Your task to perform on an android device: allow cookies in the chrome app Image 0: 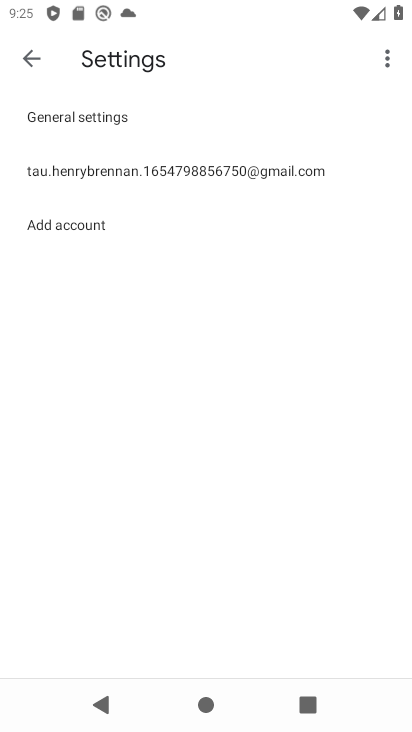
Step 0: press home button
Your task to perform on an android device: allow cookies in the chrome app Image 1: 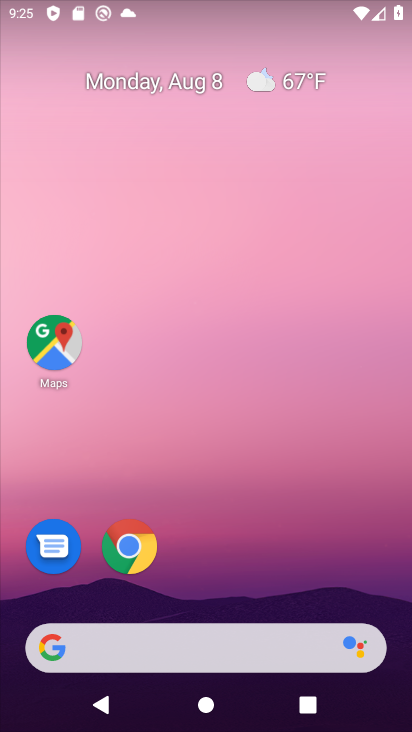
Step 1: click (125, 554)
Your task to perform on an android device: allow cookies in the chrome app Image 2: 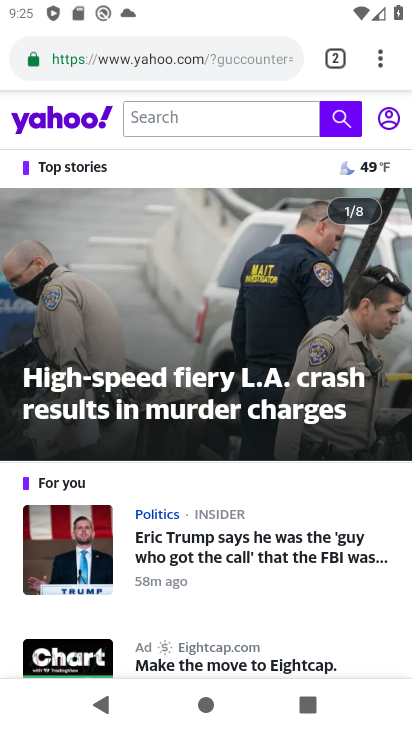
Step 2: click (387, 69)
Your task to perform on an android device: allow cookies in the chrome app Image 3: 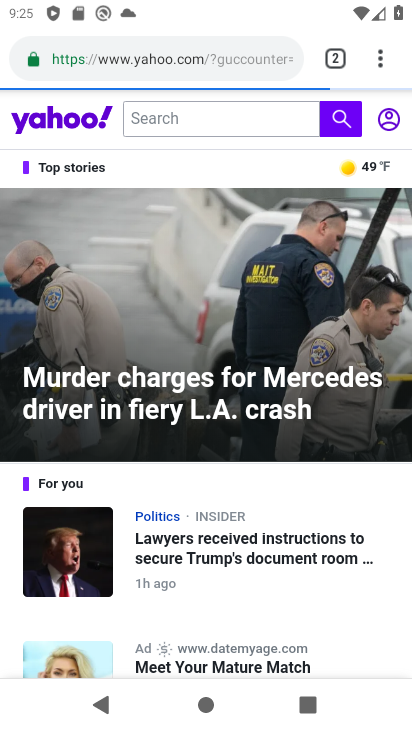
Step 3: click (387, 56)
Your task to perform on an android device: allow cookies in the chrome app Image 4: 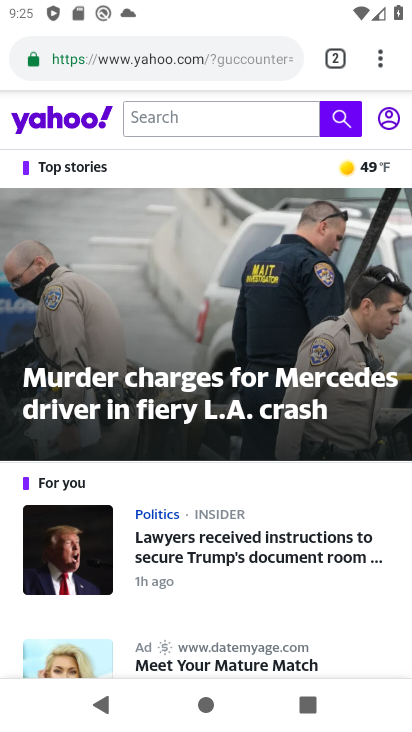
Step 4: click (399, 55)
Your task to perform on an android device: allow cookies in the chrome app Image 5: 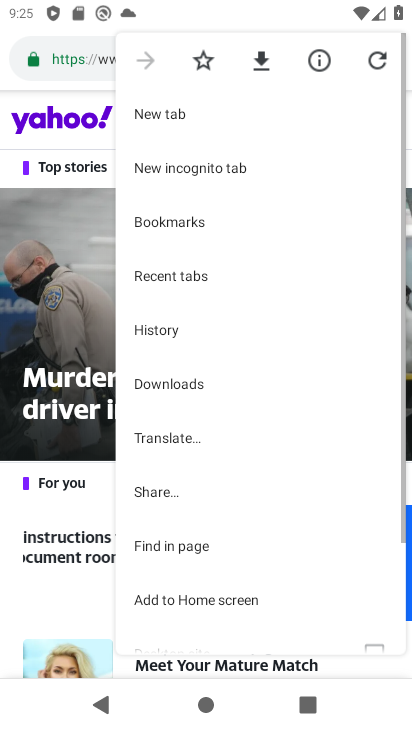
Step 5: click (172, 328)
Your task to perform on an android device: allow cookies in the chrome app Image 6: 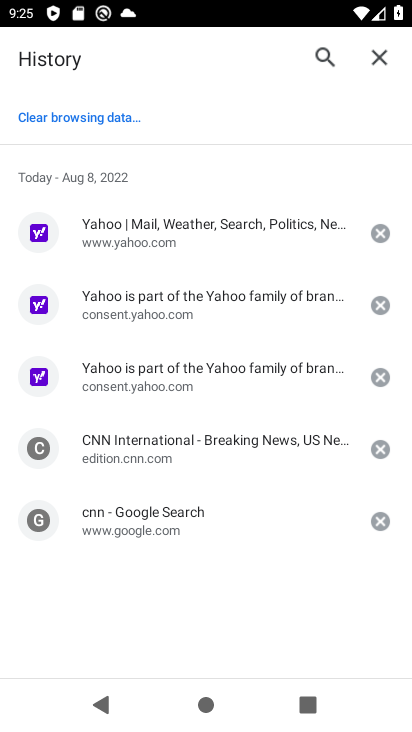
Step 6: click (72, 113)
Your task to perform on an android device: allow cookies in the chrome app Image 7: 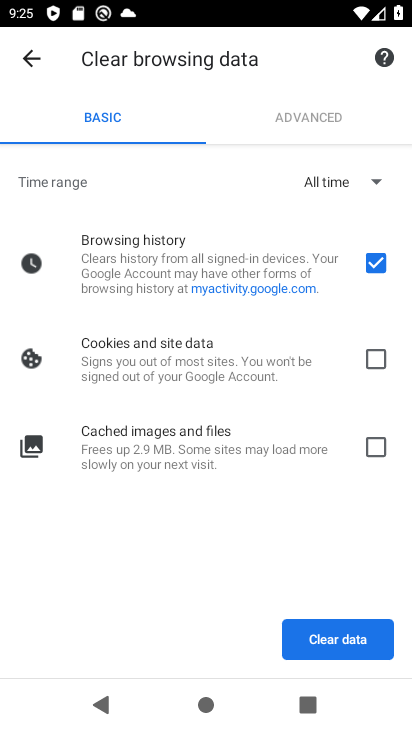
Step 7: click (374, 355)
Your task to perform on an android device: allow cookies in the chrome app Image 8: 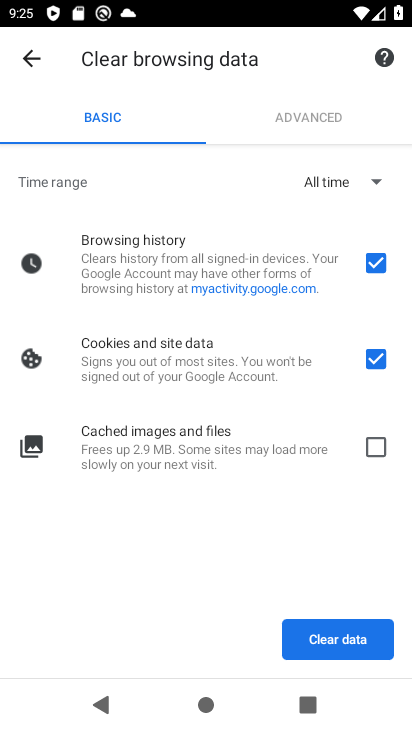
Step 8: click (376, 269)
Your task to perform on an android device: allow cookies in the chrome app Image 9: 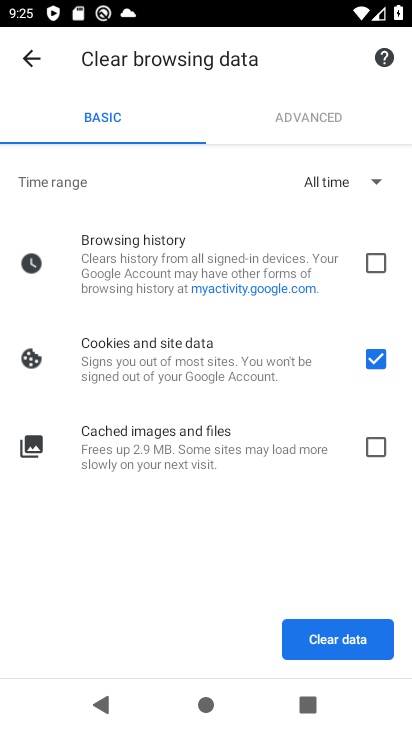
Step 9: click (331, 629)
Your task to perform on an android device: allow cookies in the chrome app Image 10: 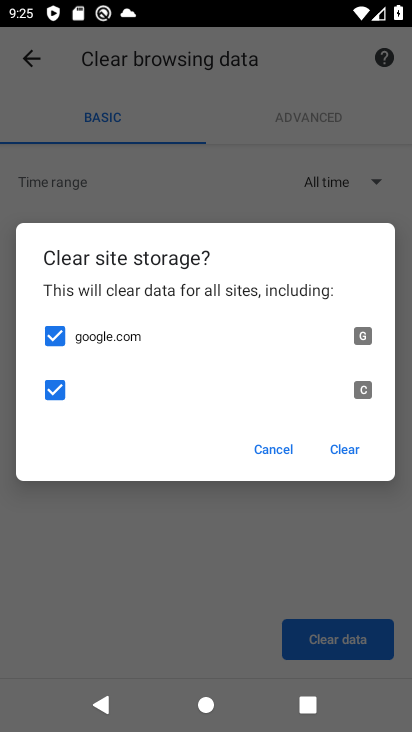
Step 10: click (344, 447)
Your task to perform on an android device: allow cookies in the chrome app Image 11: 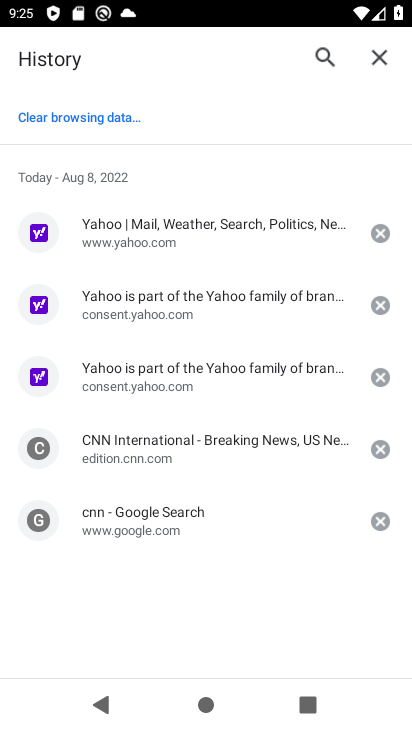
Step 11: task complete